Your task to perform on an android device: Open settings on Google Maps Image 0: 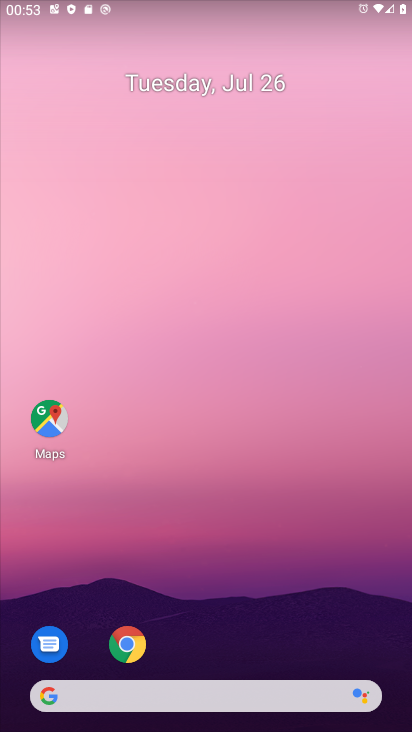
Step 0: drag from (233, 673) to (194, 138)
Your task to perform on an android device: Open settings on Google Maps Image 1: 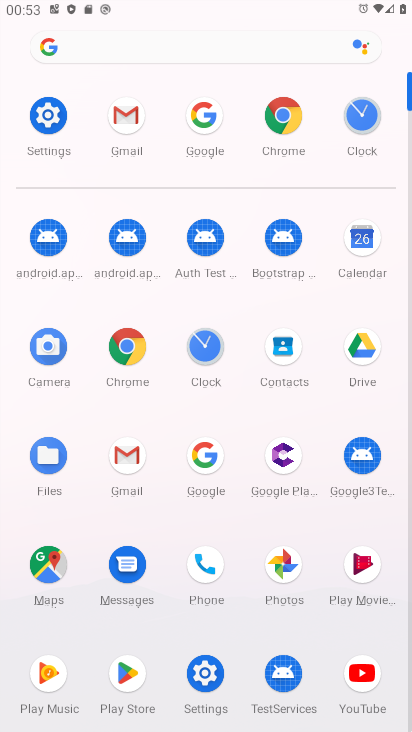
Step 1: click (42, 566)
Your task to perform on an android device: Open settings on Google Maps Image 2: 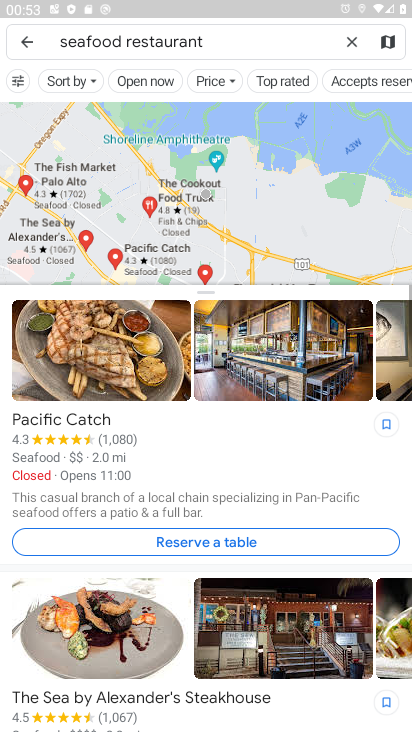
Step 2: click (343, 38)
Your task to perform on an android device: Open settings on Google Maps Image 3: 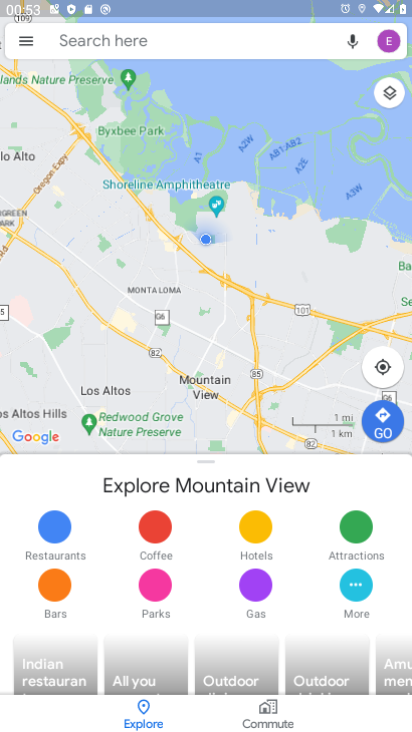
Step 3: click (19, 33)
Your task to perform on an android device: Open settings on Google Maps Image 4: 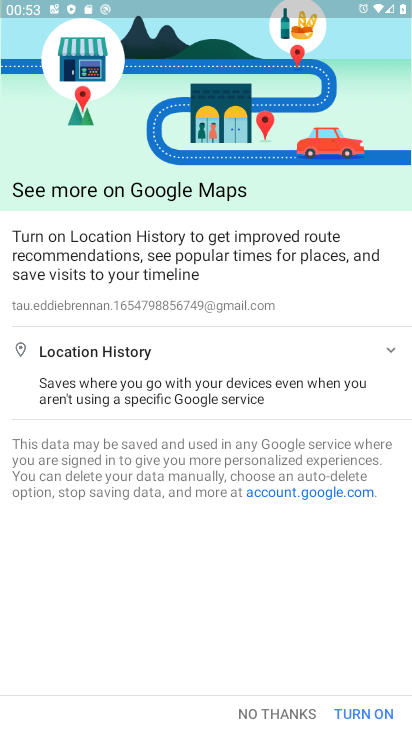
Step 4: click (289, 710)
Your task to perform on an android device: Open settings on Google Maps Image 5: 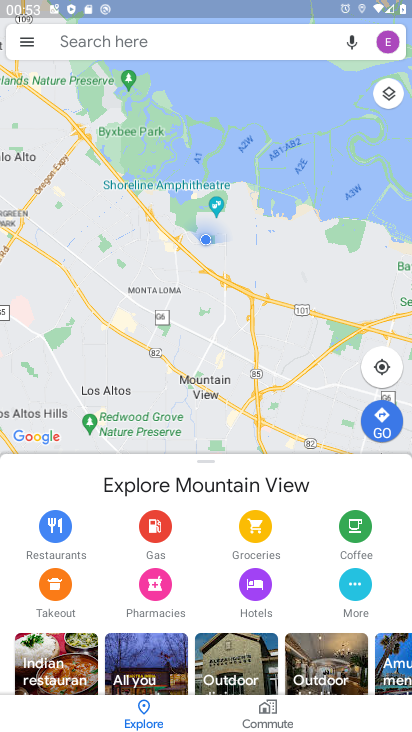
Step 5: click (23, 38)
Your task to perform on an android device: Open settings on Google Maps Image 6: 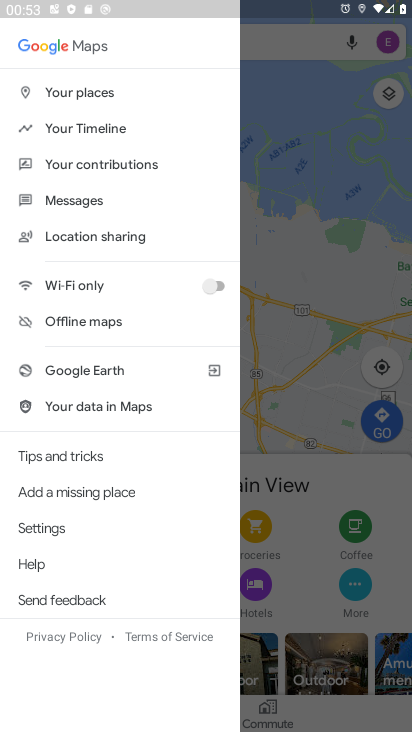
Step 6: click (59, 524)
Your task to perform on an android device: Open settings on Google Maps Image 7: 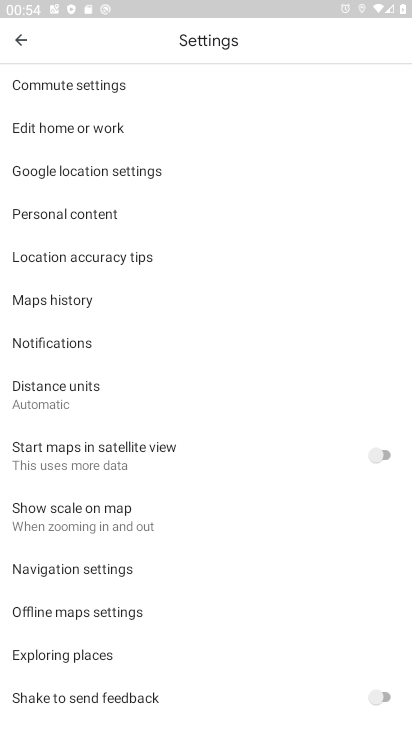
Step 7: task complete